Your task to perform on an android device: move a message to another label in the gmail app Image 0: 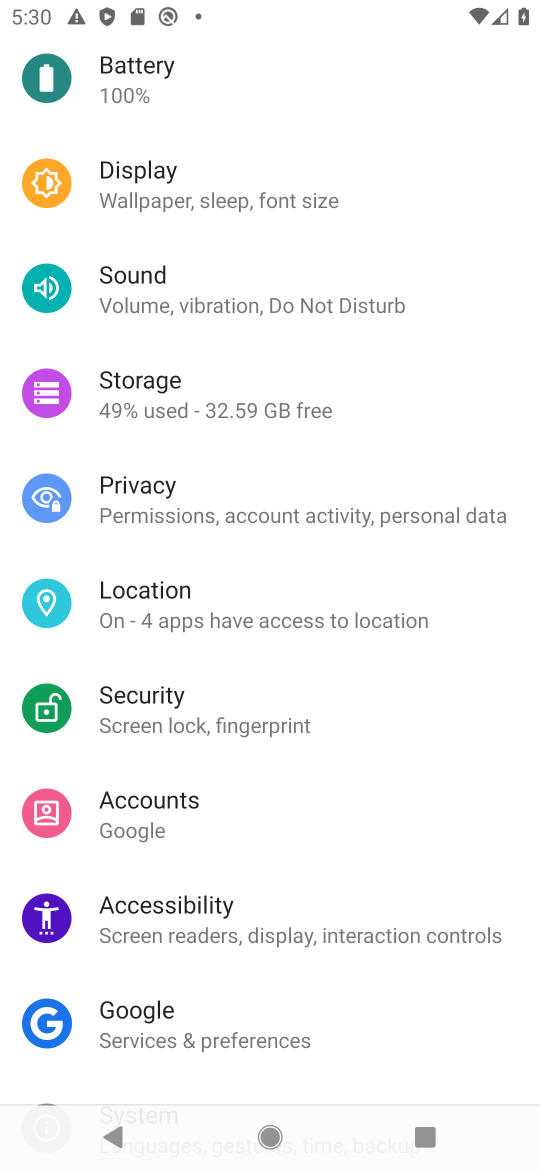
Step 0: press home button
Your task to perform on an android device: move a message to another label in the gmail app Image 1: 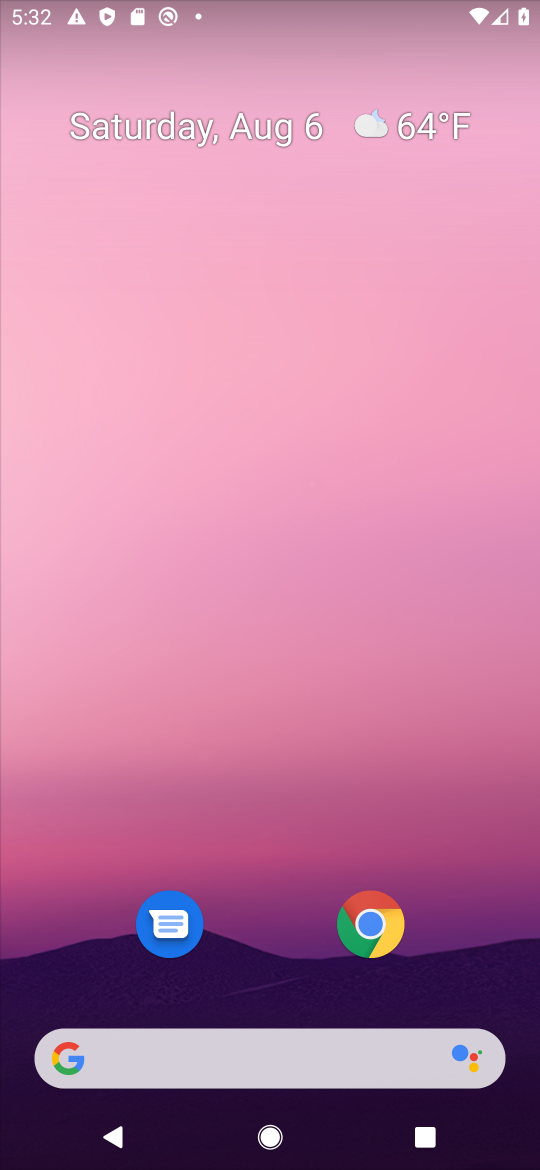
Step 1: click (294, 132)
Your task to perform on an android device: move a message to another label in the gmail app Image 2: 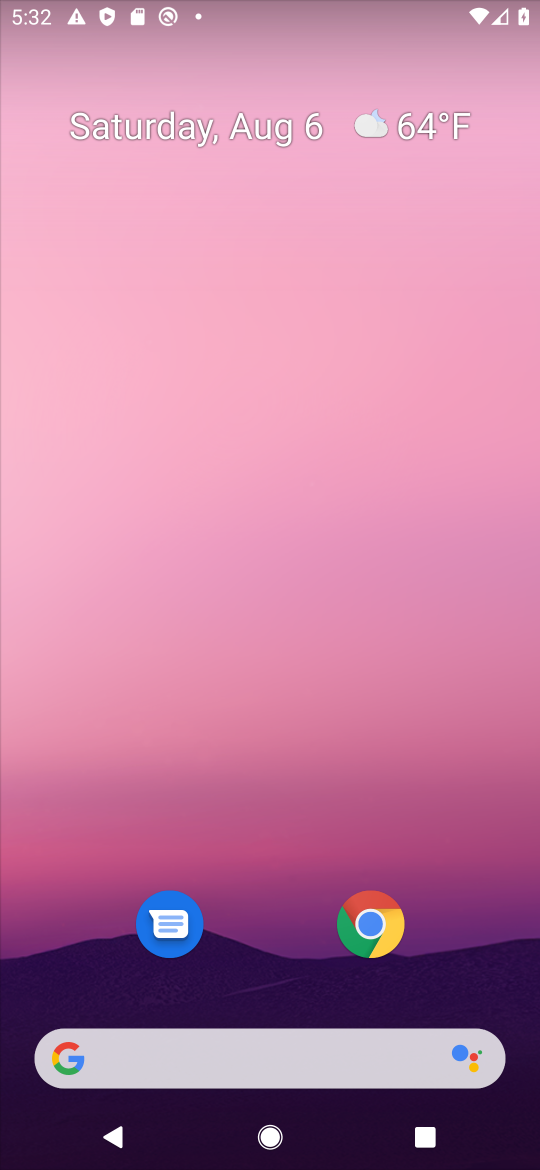
Step 2: drag from (193, 1137) to (285, 140)
Your task to perform on an android device: move a message to another label in the gmail app Image 3: 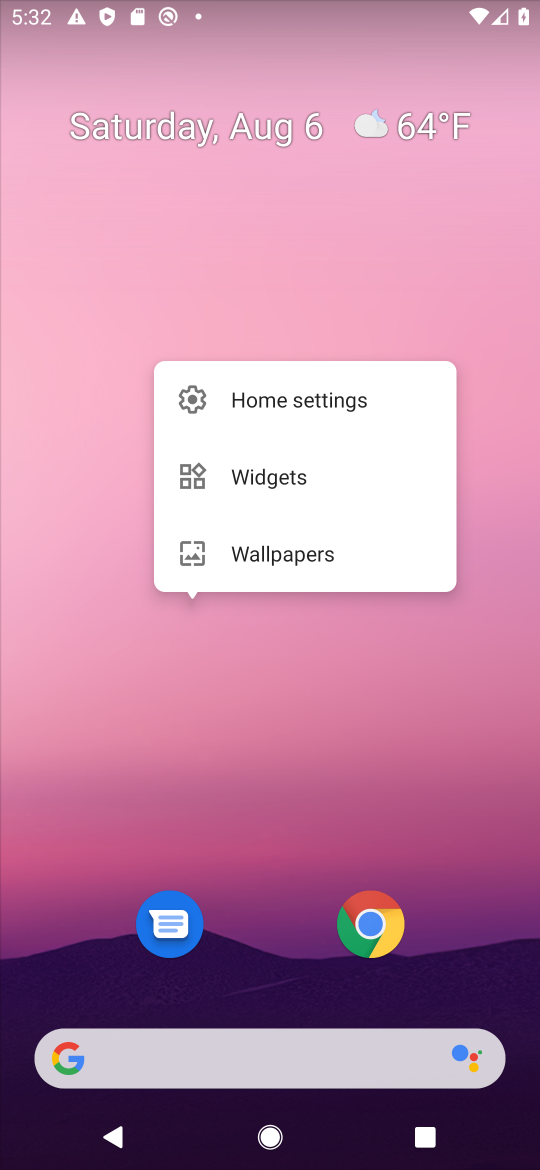
Step 3: click (339, 1128)
Your task to perform on an android device: move a message to another label in the gmail app Image 4: 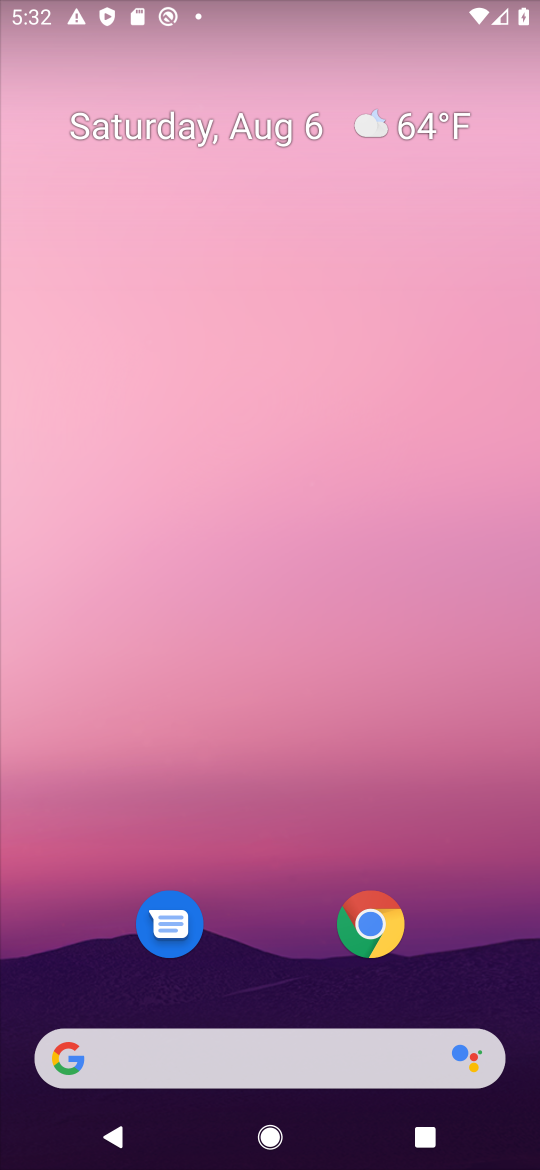
Step 4: drag from (348, 1151) to (353, 41)
Your task to perform on an android device: move a message to another label in the gmail app Image 5: 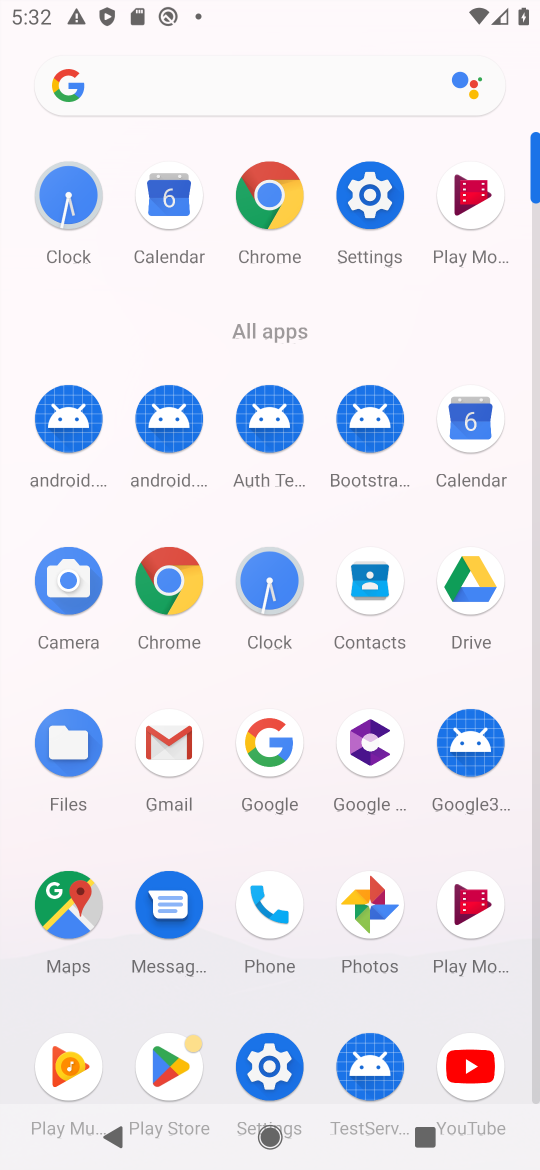
Step 5: click (173, 729)
Your task to perform on an android device: move a message to another label in the gmail app Image 6: 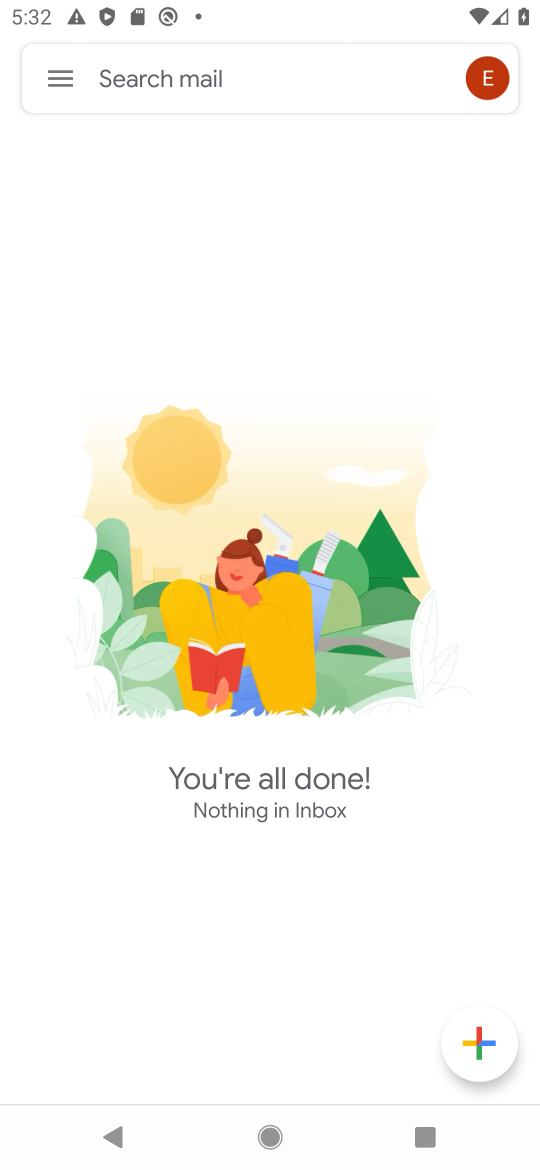
Step 6: task complete